Your task to perform on an android device: Open battery settings Image 0: 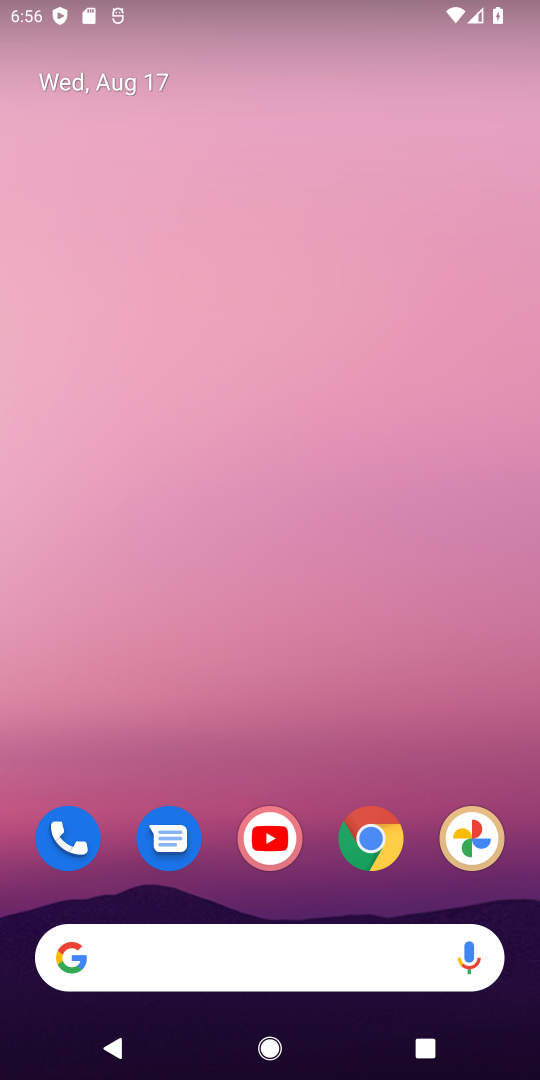
Step 0: drag from (241, 969) to (355, 191)
Your task to perform on an android device: Open battery settings Image 1: 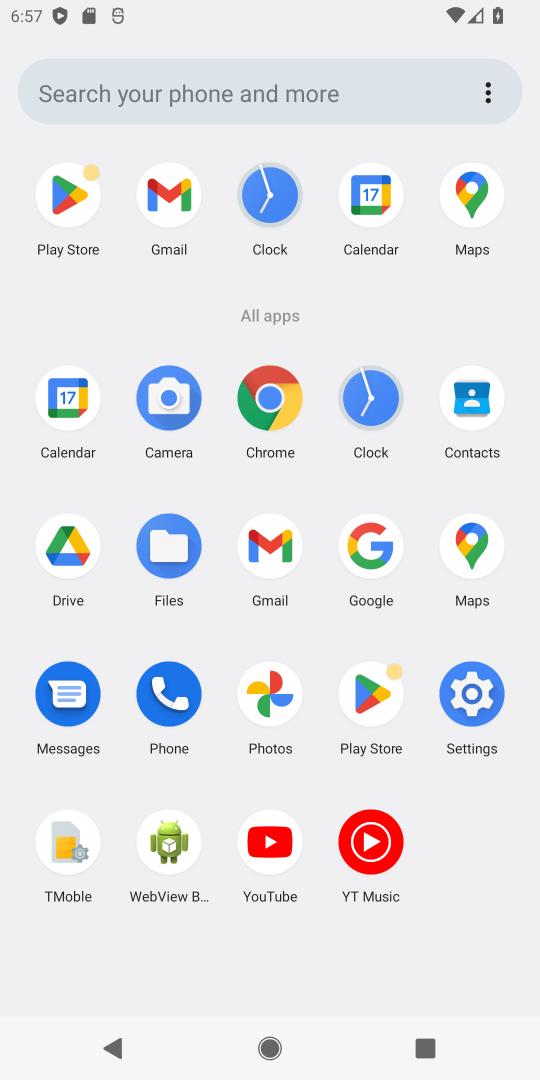
Step 1: click (493, 696)
Your task to perform on an android device: Open battery settings Image 2: 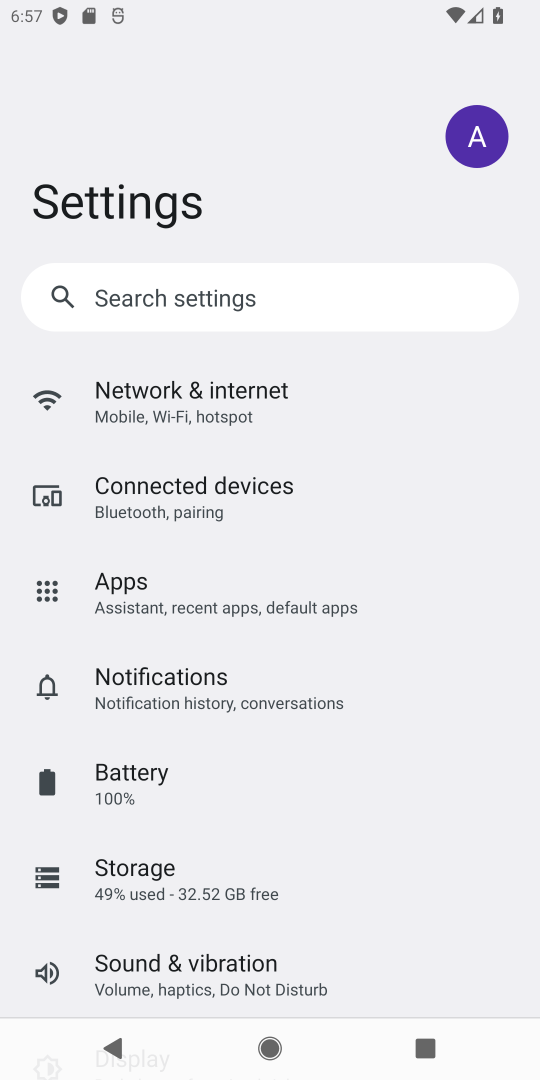
Step 2: click (229, 801)
Your task to perform on an android device: Open battery settings Image 3: 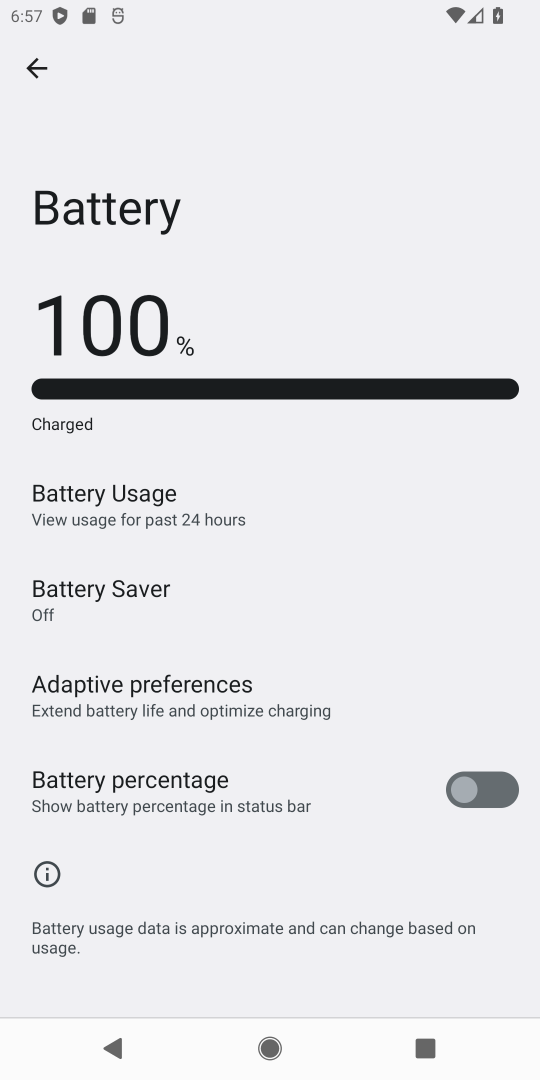
Step 3: task complete